Your task to perform on an android device: set the stopwatch Image 0: 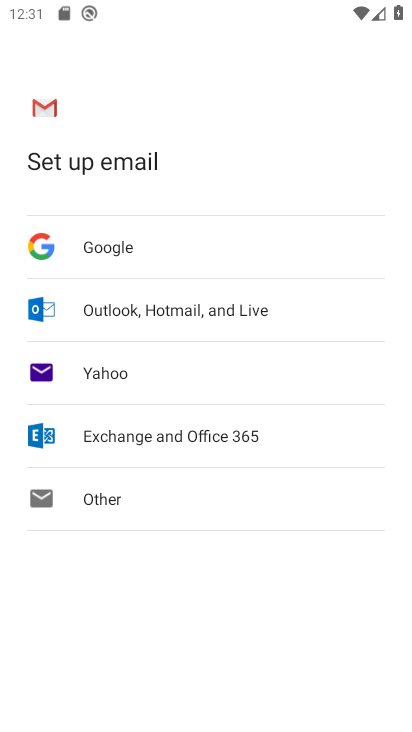
Step 0: press home button
Your task to perform on an android device: set the stopwatch Image 1: 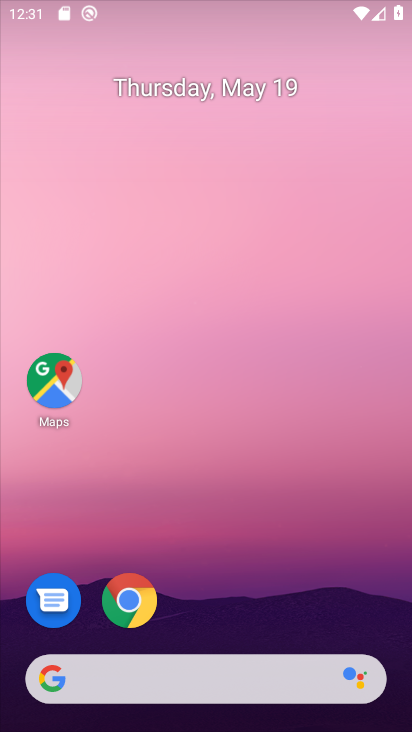
Step 1: drag from (307, 556) to (196, 1)
Your task to perform on an android device: set the stopwatch Image 2: 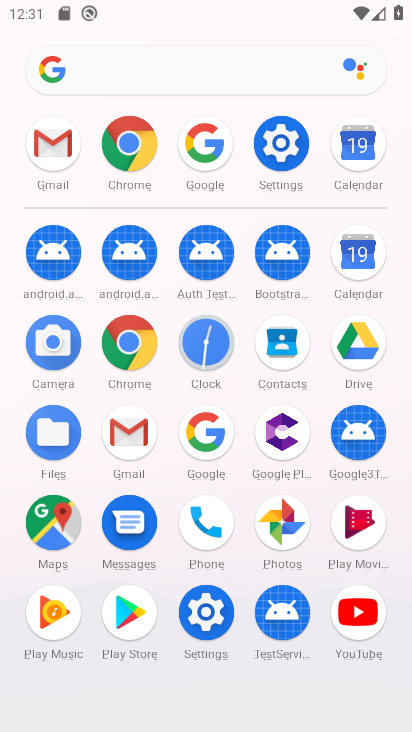
Step 2: click (216, 335)
Your task to perform on an android device: set the stopwatch Image 3: 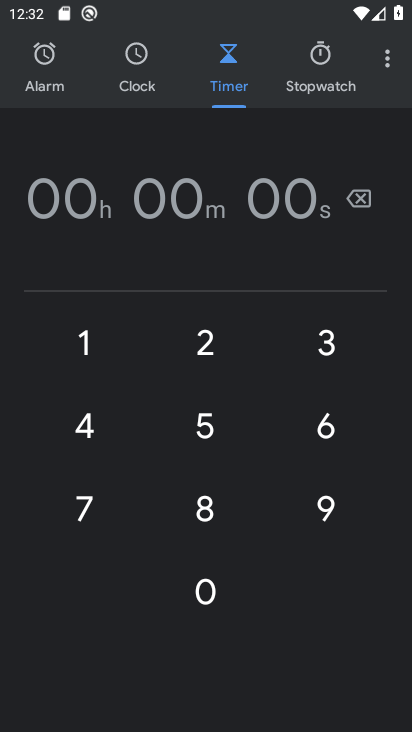
Step 3: click (314, 80)
Your task to perform on an android device: set the stopwatch Image 4: 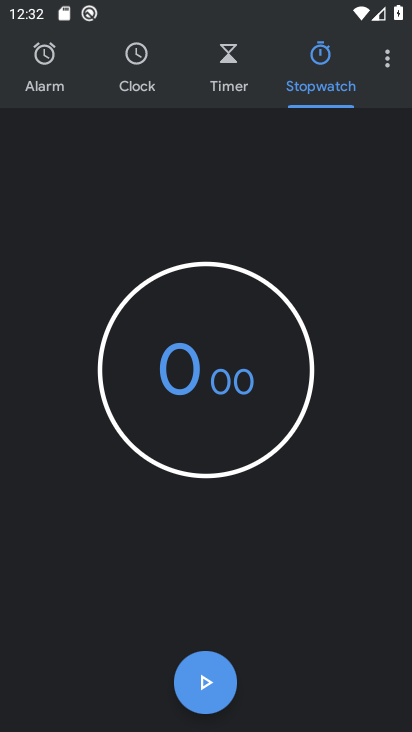
Step 4: click (210, 690)
Your task to perform on an android device: set the stopwatch Image 5: 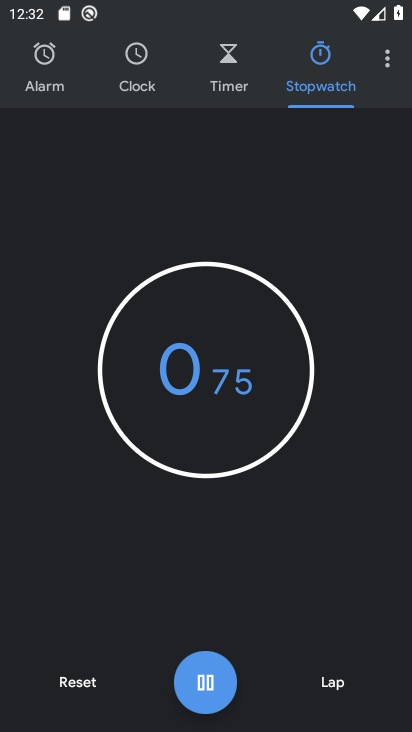
Step 5: task complete